Your task to perform on an android device: turn on improve location accuracy Image 0: 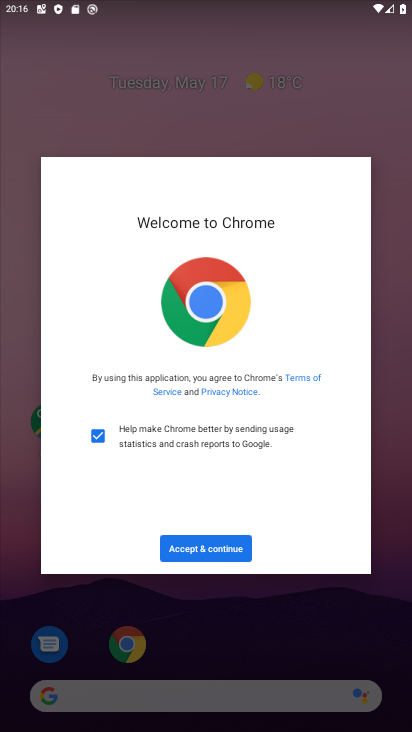
Step 0: click (206, 550)
Your task to perform on an android device: turn on improve location accuracy Image 1: 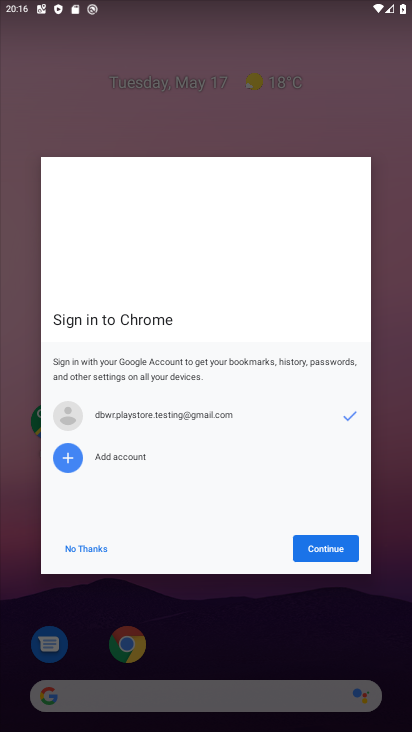
Step 1: click (336, 538)
Your task to perform on an android device: turn on improve location accuracy Image 2: 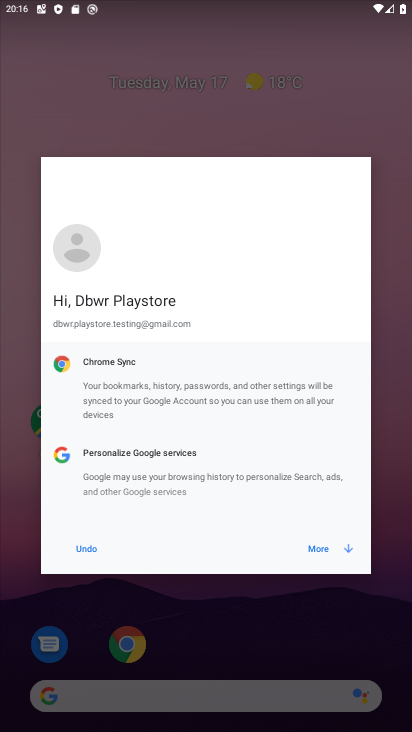
Step 2: click (324, 544)
Your task to perform on an android device: turn on improve location accuracy Image 3: 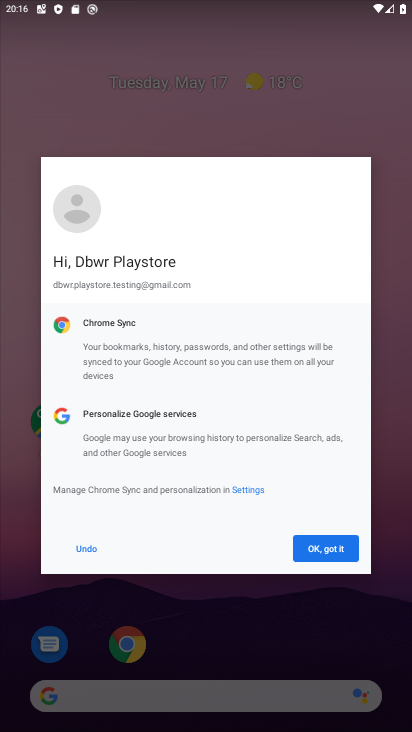
Step 3: click (328, 543)
Your task to perform on an android device: turn on improve location accuracy Image 4: 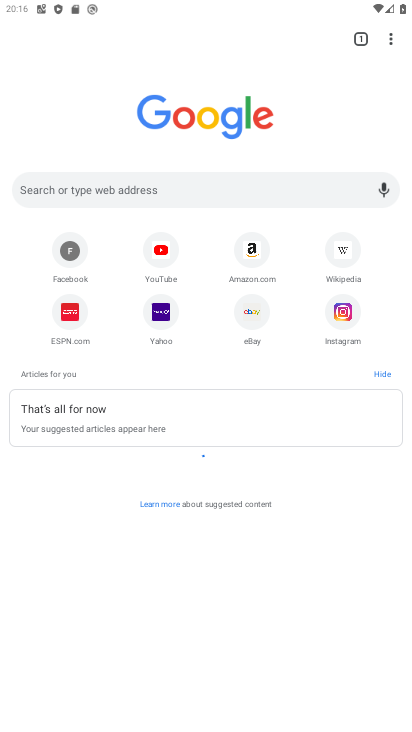
Step 4: press back button
Your task to perform on an android device: turn on improve location accuracy Image 5: 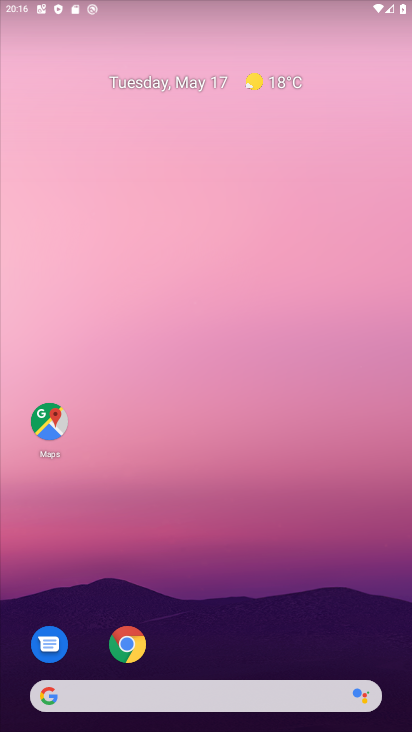
Step 5: drag from (217, 591) to (270, 69)
Your task to perform on an android device: turn on improve location accuracy Image 6: 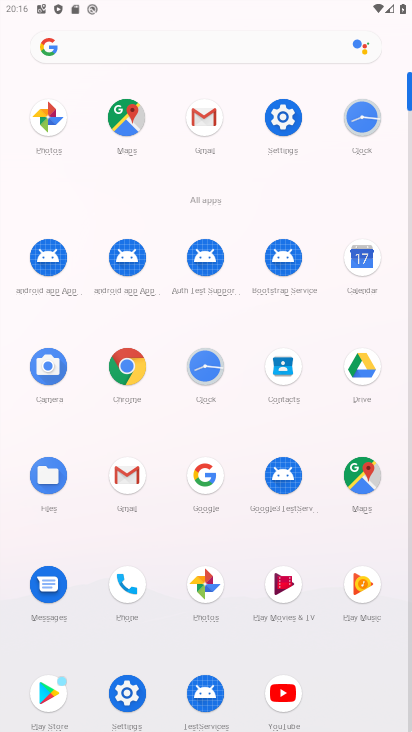
Step 6: click (300, 95)
Your task to perform on an android device: turn on improve location accuracy Image 7: 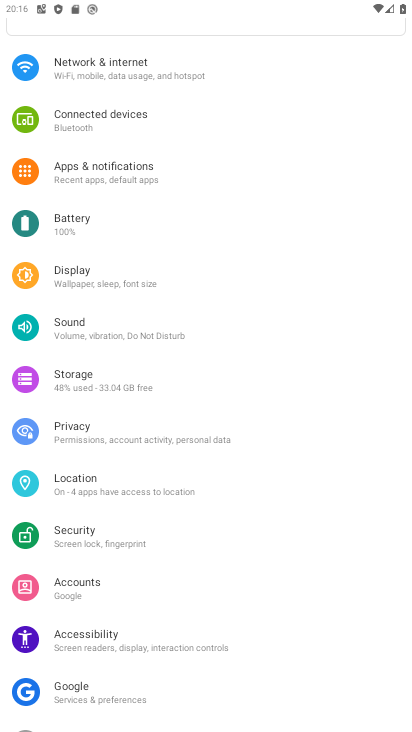
Step 7: click (91, 487)
Your task to perform on an android device: turn on improve location accuracy Image 8: 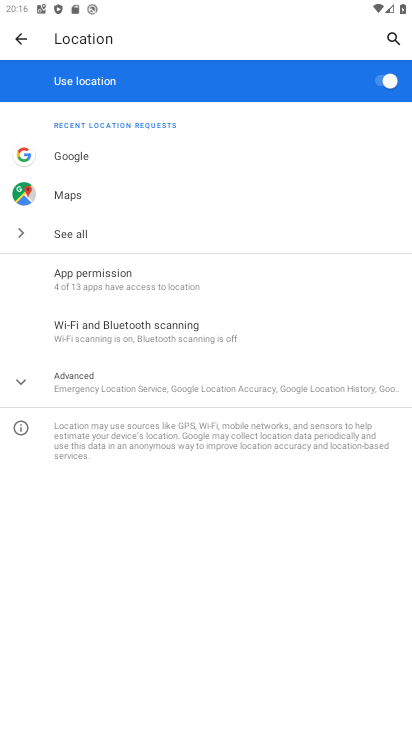
Step 8: click (103, 381)
Your task to perform on an android device: turn on improve location accuracy Image 9: 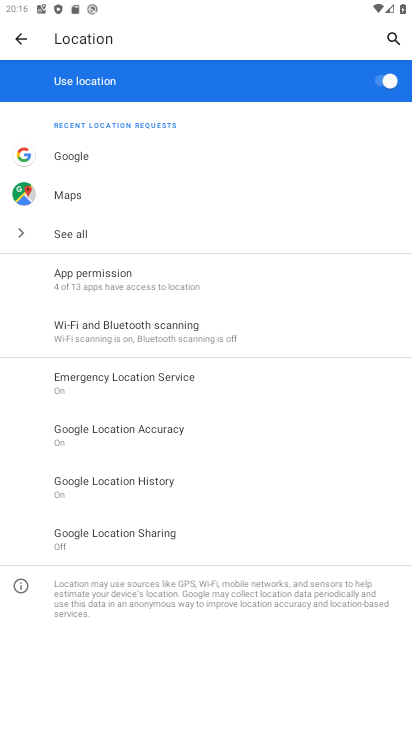
Step 9: click (158, 431)
Your task to perform on an android device: turn on improve location accuracy Image 10: 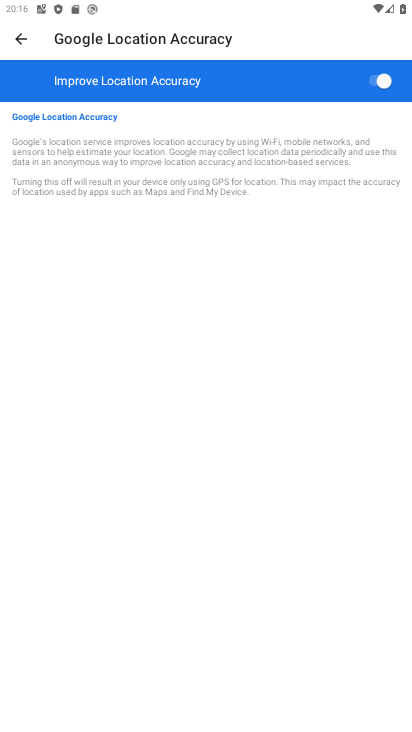
Step 10: task complete